Your task to perform on an android device: Open Google Maps Image 0: 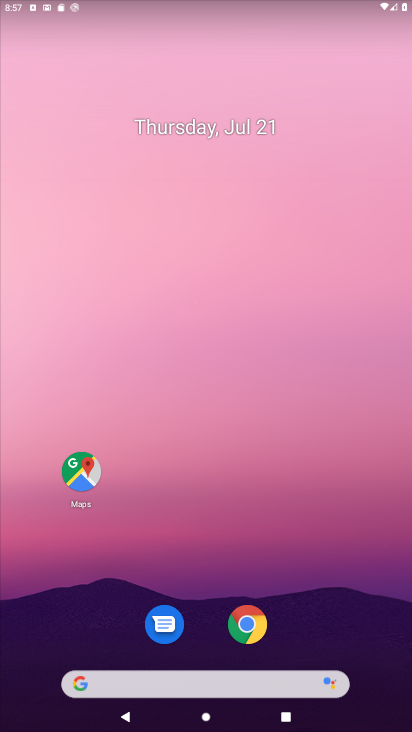
Step 0: click (69, 473)
Your task to perform on an android device: Open Google Maps Image 1: 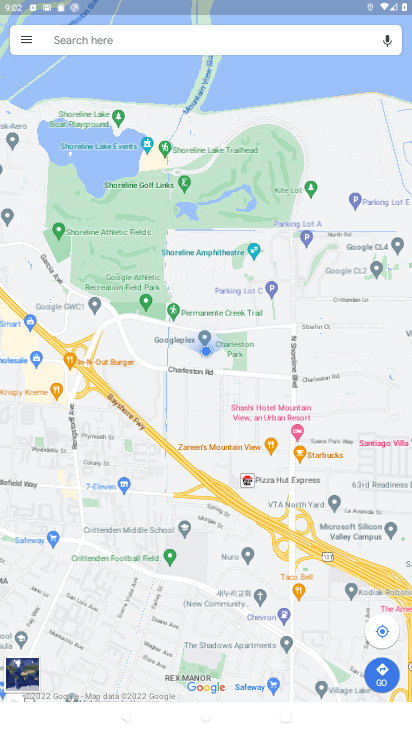
Step 1: task complete